Your task to perform on an android device: Open location settings Image 0: 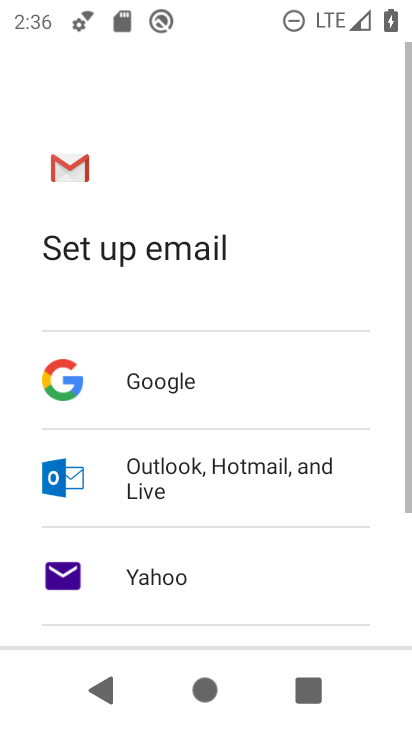
Step 0: press home button
Your task to perform on an android device: Open location settings Image 1: 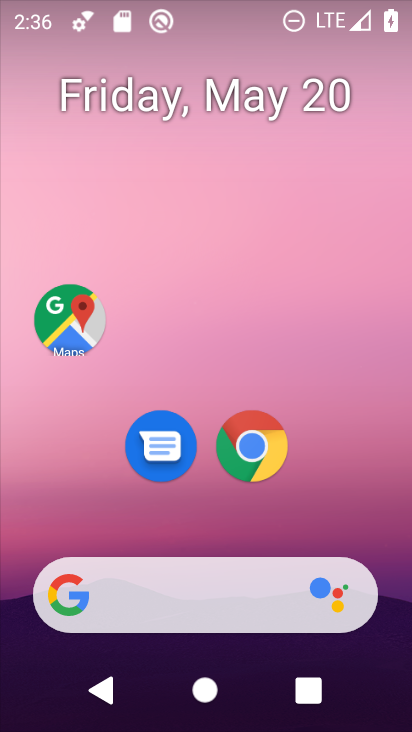
Step 1: drag from (374, 542) to (409, 662)
Your task to perform on an android device: Open location settings Image 2: 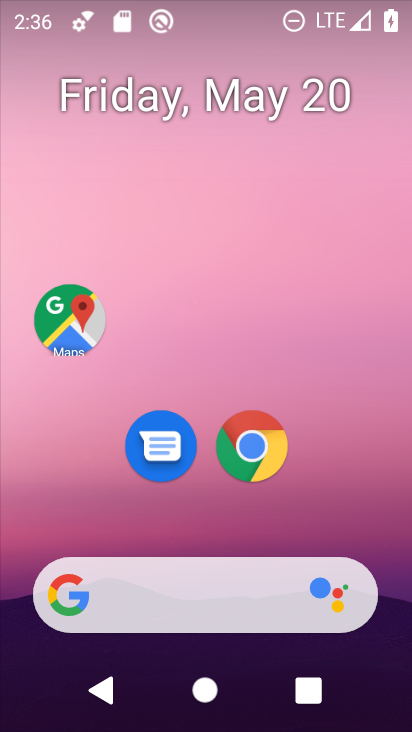
Step 2: drag from (396, 561) to (362, 2)
Your task to perform on an android device: Open location settings Image 3: 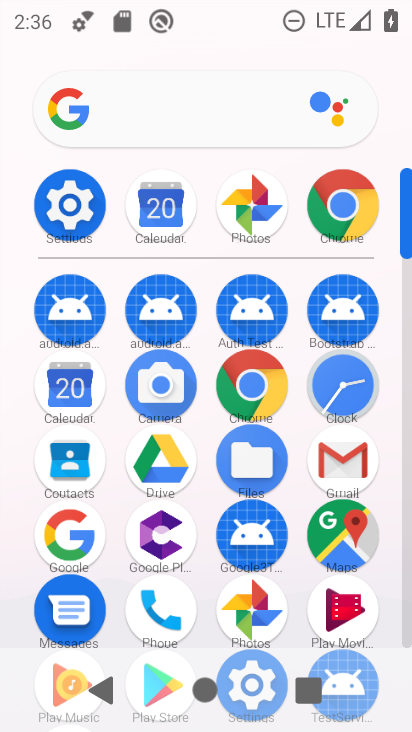
Step 3: click (71, 206)
Your task to perform on an android device: Open location settings Image 4: 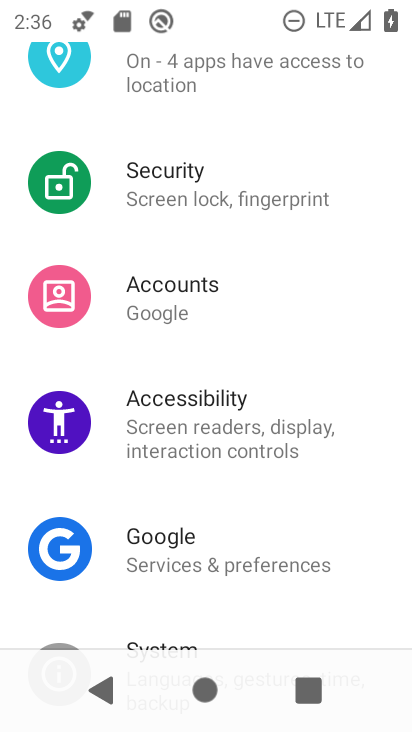
Step 4: drag from (360, 282) to (369, 468)
Your task to perform on an android device: Open location settings Image 5: 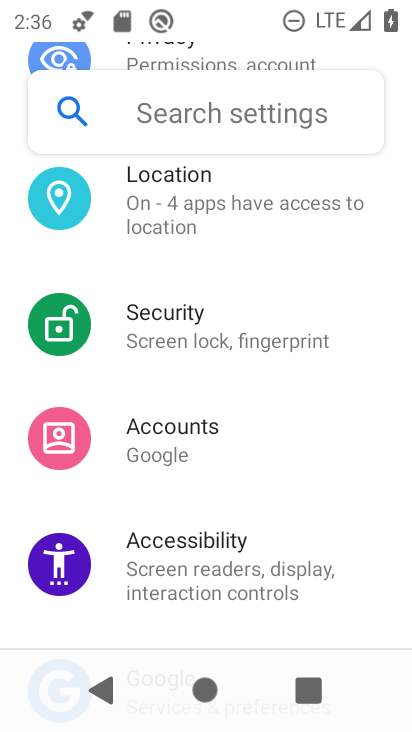
Step 5: click (189, 203)
Your task to perform on an android device: Open location settings Image 6: 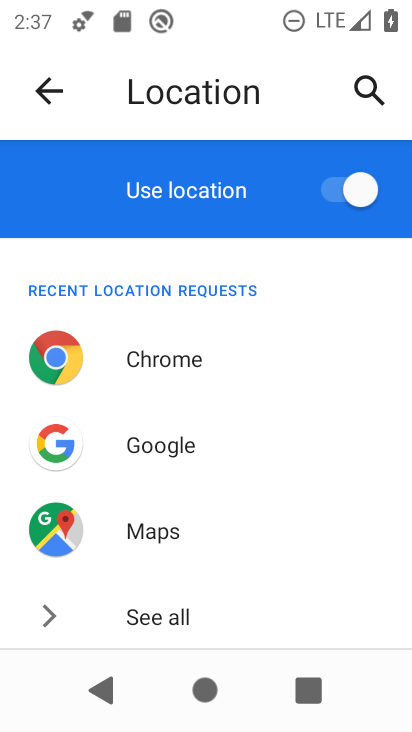
Step 6: task complete